Your task to perform on an android device: Go to battery settings Image 0: 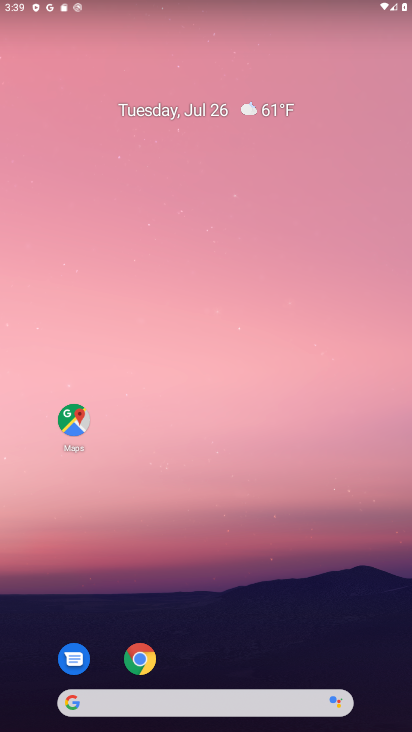
Step 0: drag from (290, 597) to (229, 5)
Your task to perform on an android device: Go to battery settings Image 1: 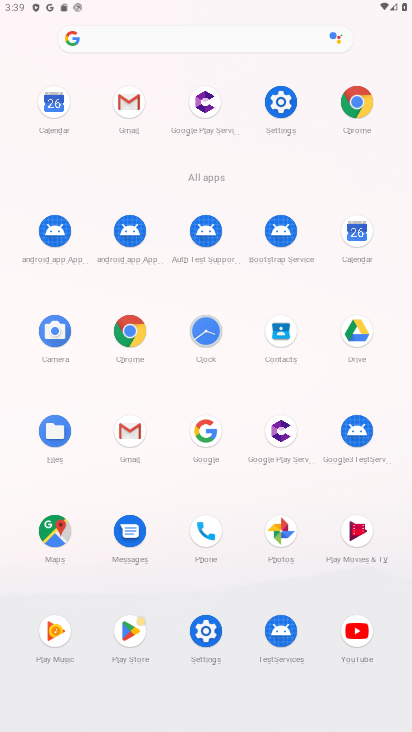
Step 1: click (276, 92)
Your task to perform on an android device: Go to battery settings Image 2: 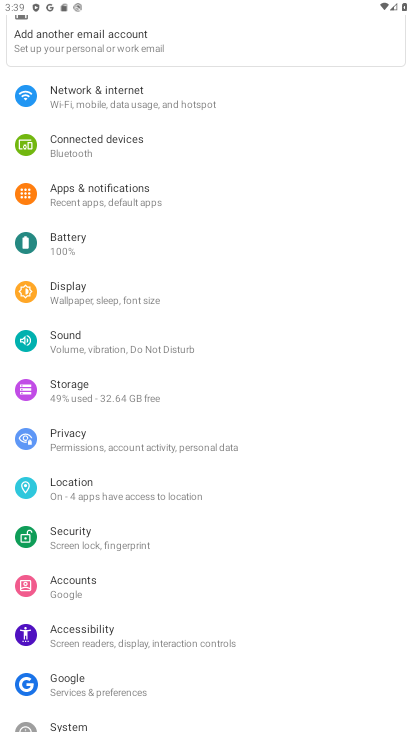
Step 2: click (91, 243)
Your task to perform on an android device: Go to battery settings Image 3: 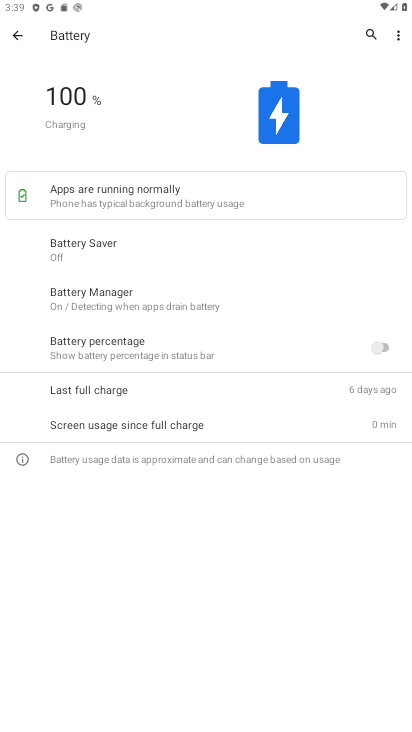
Step 3: task complete